Your task to perform on an android device: visit the assistant section in the google photos Image 0: 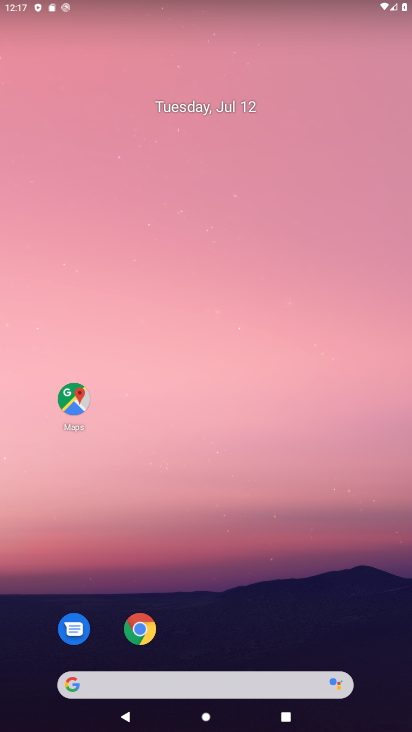
Step 0: drag from (121, 686) to (126, 3)
Your task to perform on an android device: visit the assistant section in the google photos Image 1: 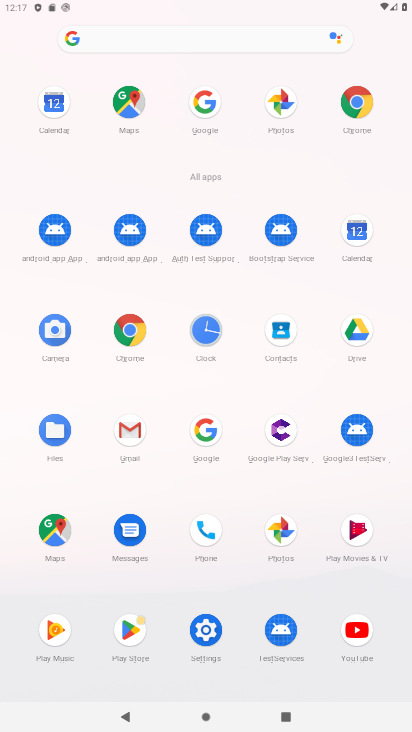
Step 1: click (287, 532)
Your task to perform on an android device: visit the assistant section in the google photos Image 2: 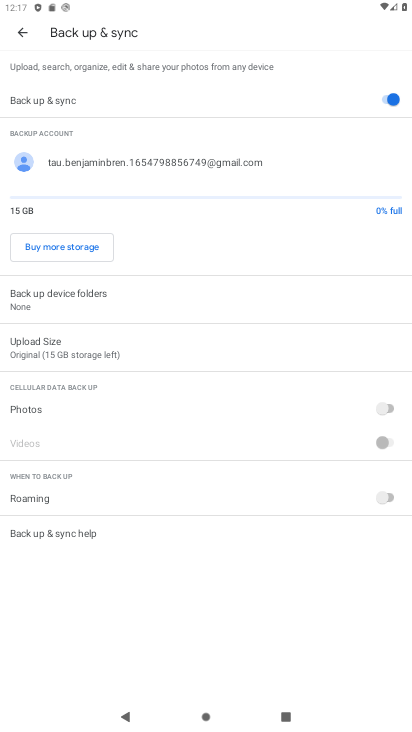
Step 2: press back button
Your task to perform on an android device: visit the assistant section in the google photos Image 3: 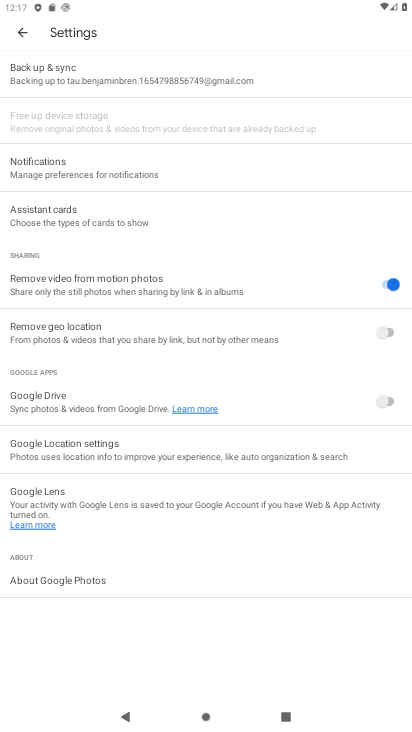
Step 3: press back button
Your task to perform on an android device: visit the assistant section in the google photos Image 4: 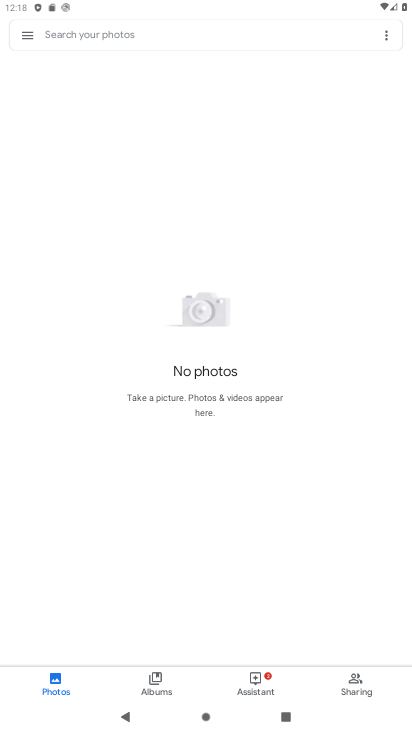
Step 4: click (256, 683)
Your task to perform on an android device: visit the assistant section in the google photos Image 5: 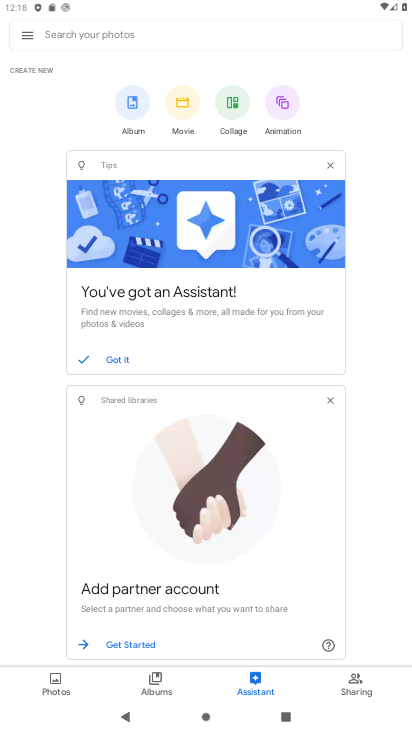
Step 5: task complete